Your task to perform on an android device: Go to calendar. Show me events next week Image 0: 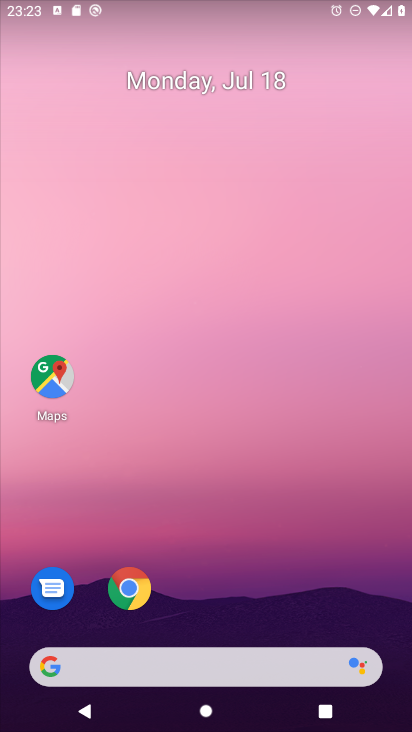
Step 0: drag from (358, 612) to (335, 156)
Your task to perform on an android device: Go to calendar. Show me events next week Image 1: 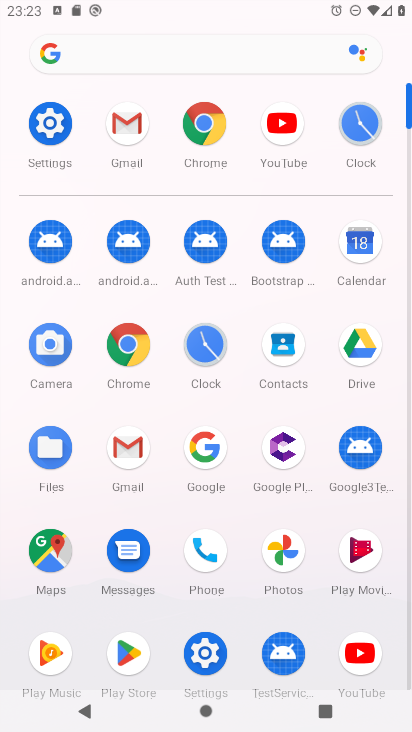
Step 1: click (357, 240)
Your task to perform on an android device: Go to calendar. Show me events next week Image 2: 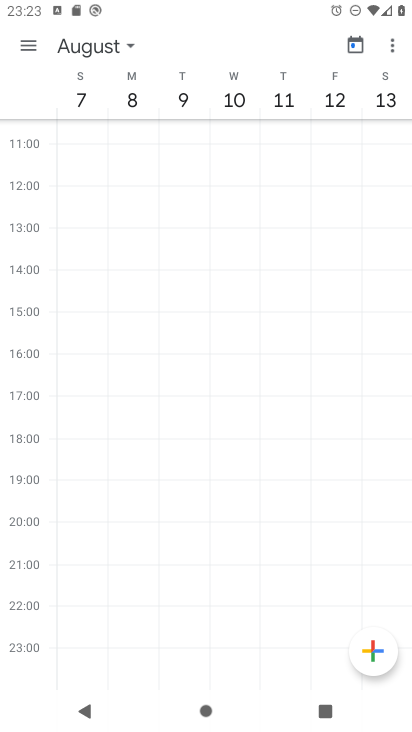
Step 2: click (121, 45)
Your task to perform on an android device: Go to calendar. Show me events next week Image 3: 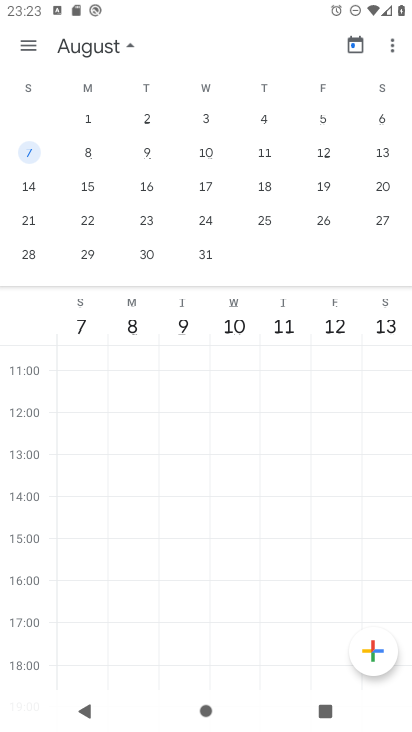
Step 3: drag from (22, 183) to (395, 207)
Your task to perform on an android device: Go to calendar. Show me events next week Image 4: 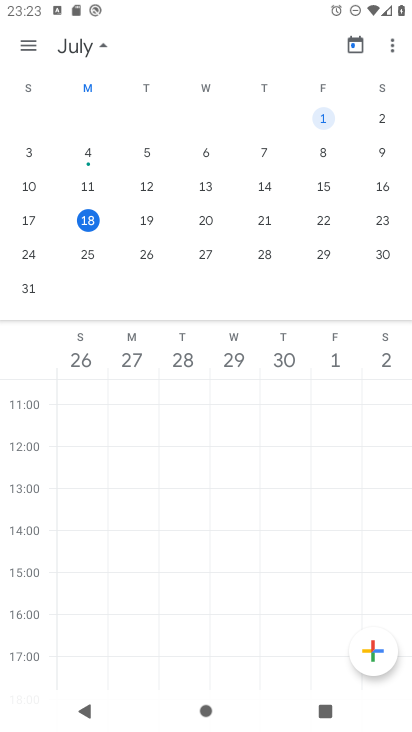
Step 4: click (25, 254)
Your task to perform on an android device: Go to calendar. Show me events next week Image 5: 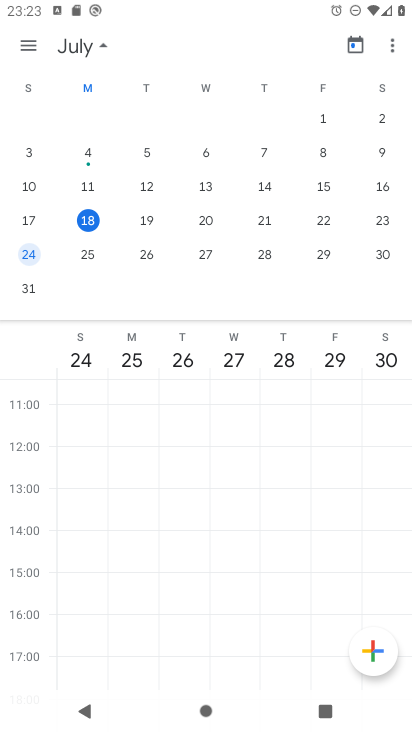
Step 5: task complete